Your task to perform on an android device: View the shopping cart on amazon.com. Add acer nitro to the cart on amazon.com Image 0: 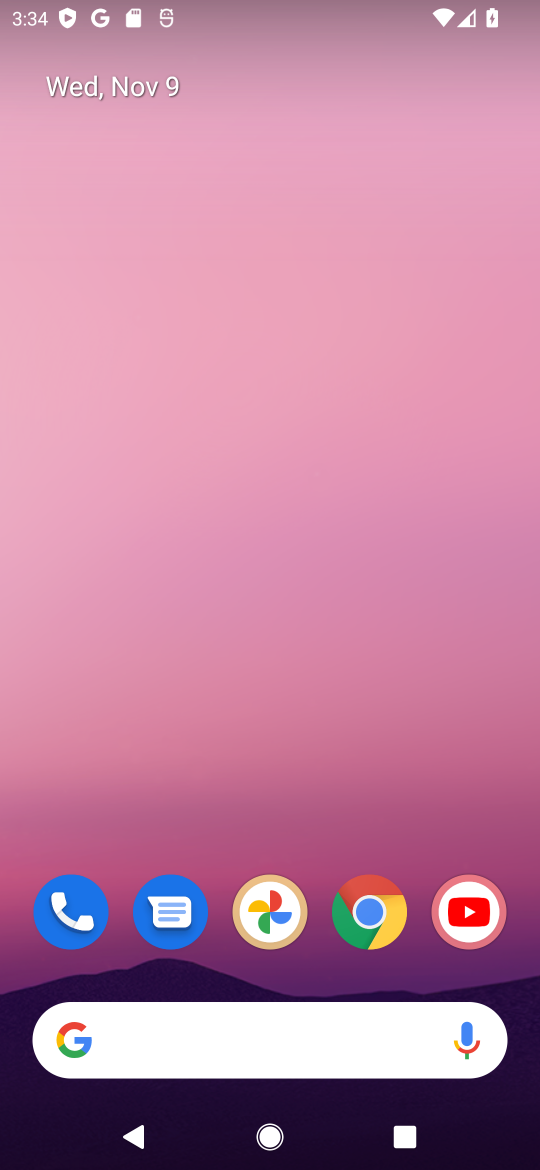
Step 0: click (369, 915)
Your task to perform on an android device: View the shopping cart on amazon.com. Add acer nitro to the cart on amazon.com Image 1: 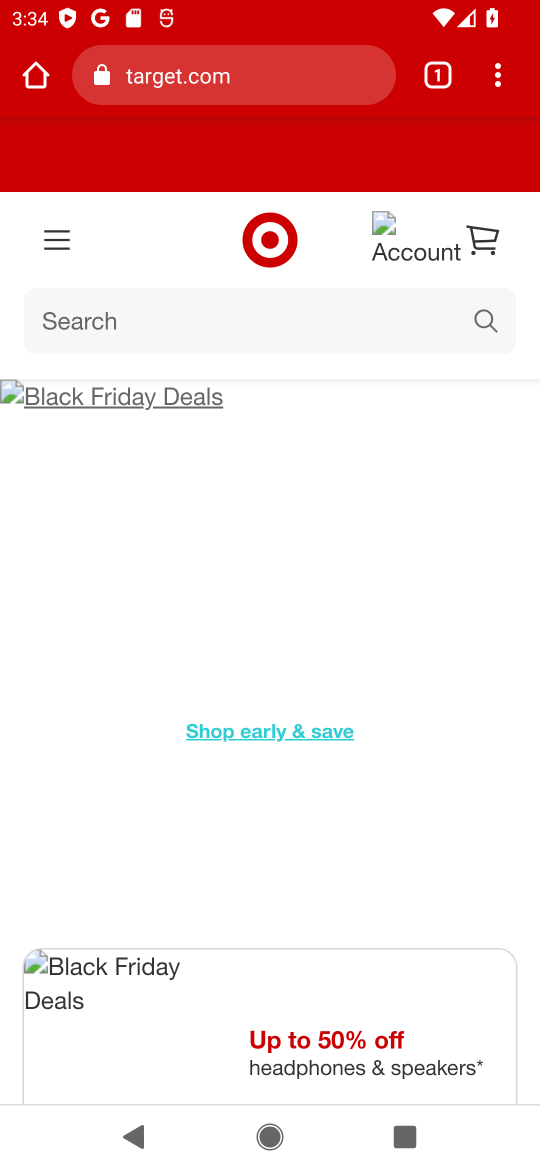
Step 1: click (259, 83)
Your task to perform on an android device: View the shopping cart on amazon.com. Add acer nitro to the cart on amazon.com Image 2: 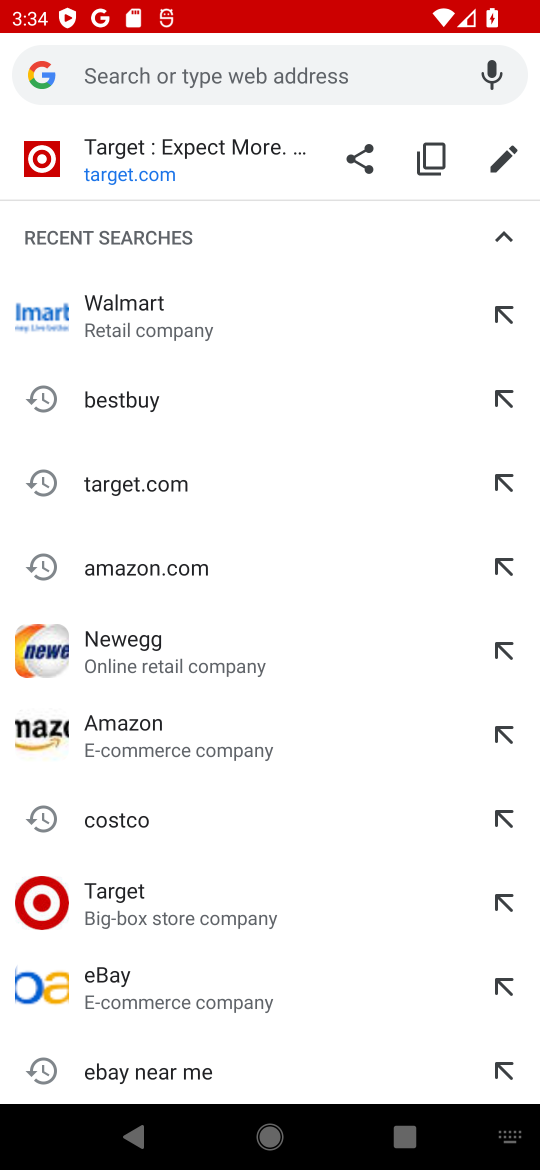
Step 2: type "amazon.com"
Your task to perform on an android device: View the shopping cart on amazon.com. Add acer nitro to the cart on amazon.com Image 3: 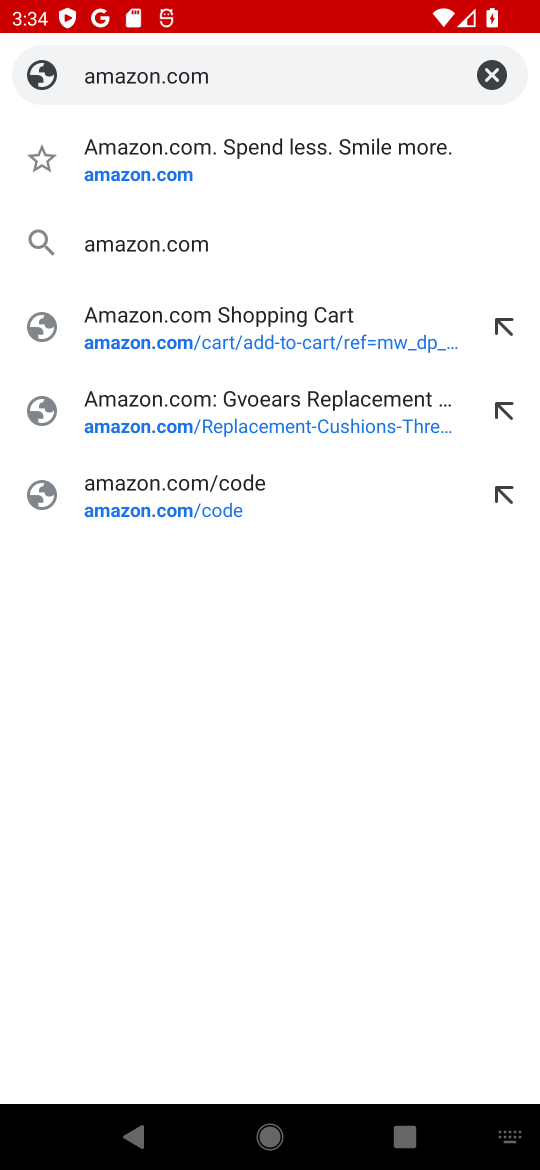
Step 3: click (137, 246)
Your task to perform on an android device: View the shopping cart on amazon.com. Add acer nitro to the cart on amazon.com Image 4: 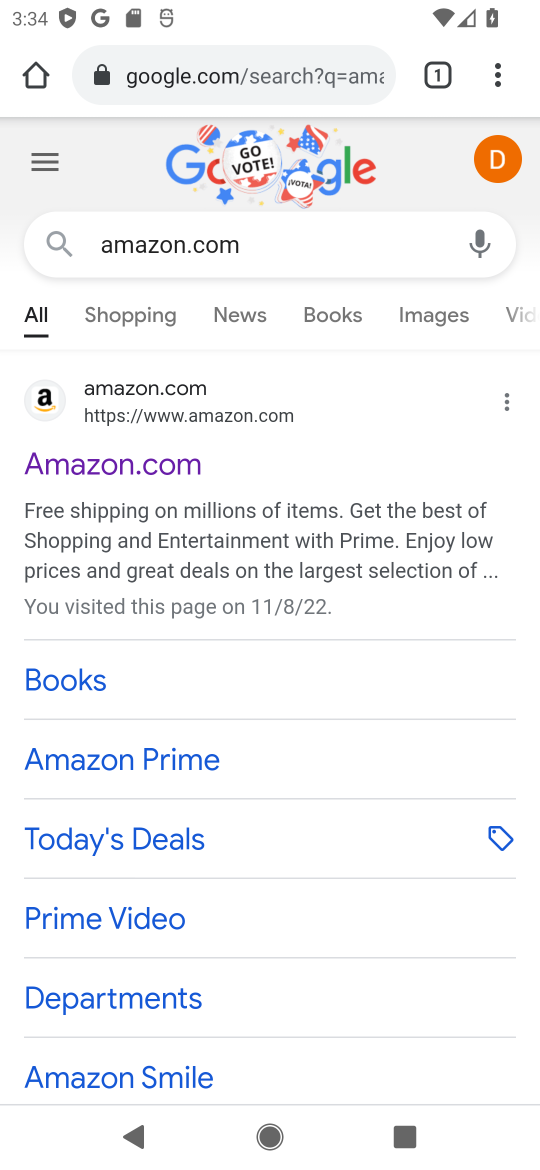
Step 4: click (143, 463)
Your task to perform on an android device: View the shopping cart on amazon.com. Add acer nitro to the cart on amazon.com Image 5: 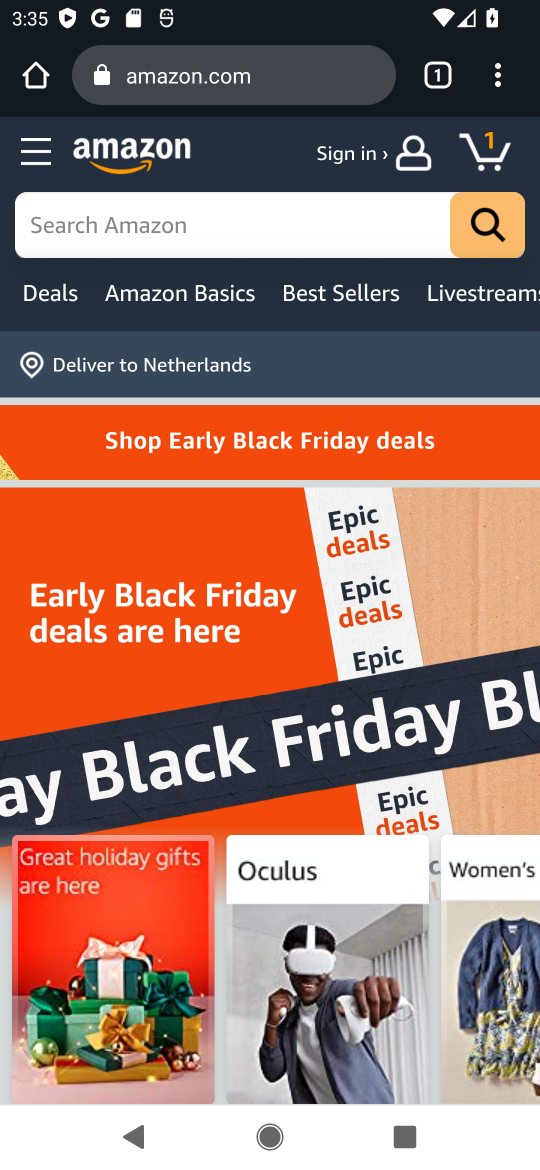
Step 5: click (488, 153)
Your task to perform on an android device: View the shopping cart on amazon.com. Add acer nitro to the cart on amazon.com Image 6: 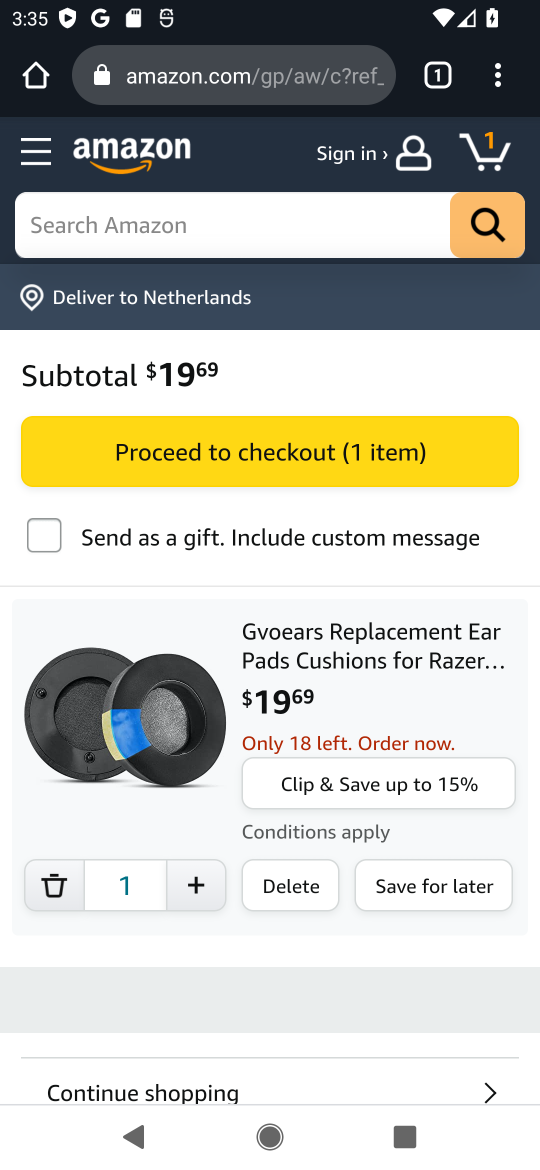
Step 6: click (273, 227)
Your task to perform on an android device: View the shopping cart on amazon.com. Add acer nitro to the cart on amazon.com Image 7: 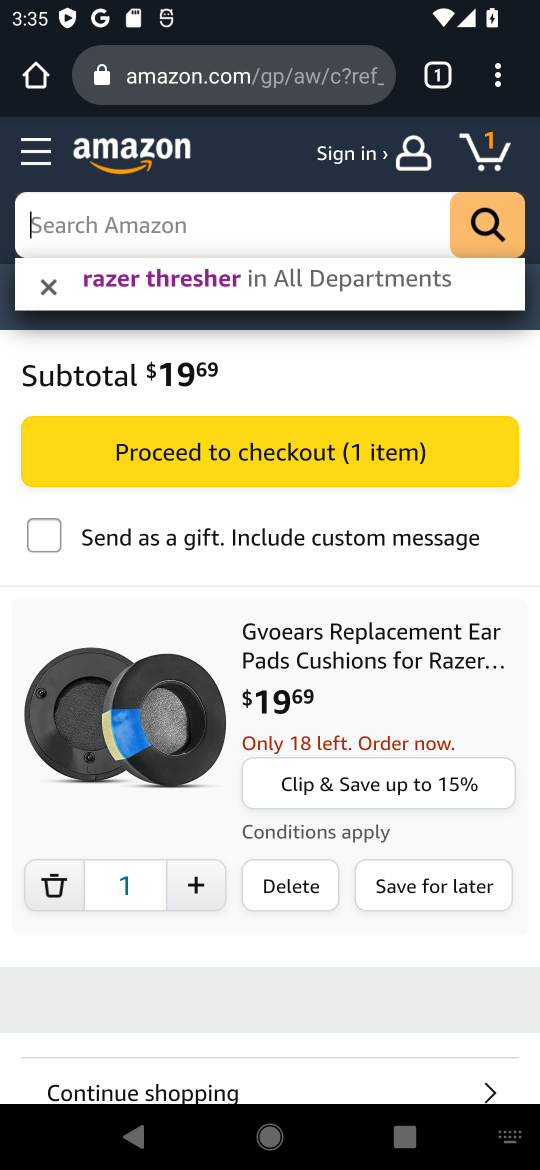
Step 7: type "acer nitro"
Your task to perform on an android device: View the shopping cart on amazon.com. Add acer nitro to the cart on amazon.com Image 8: 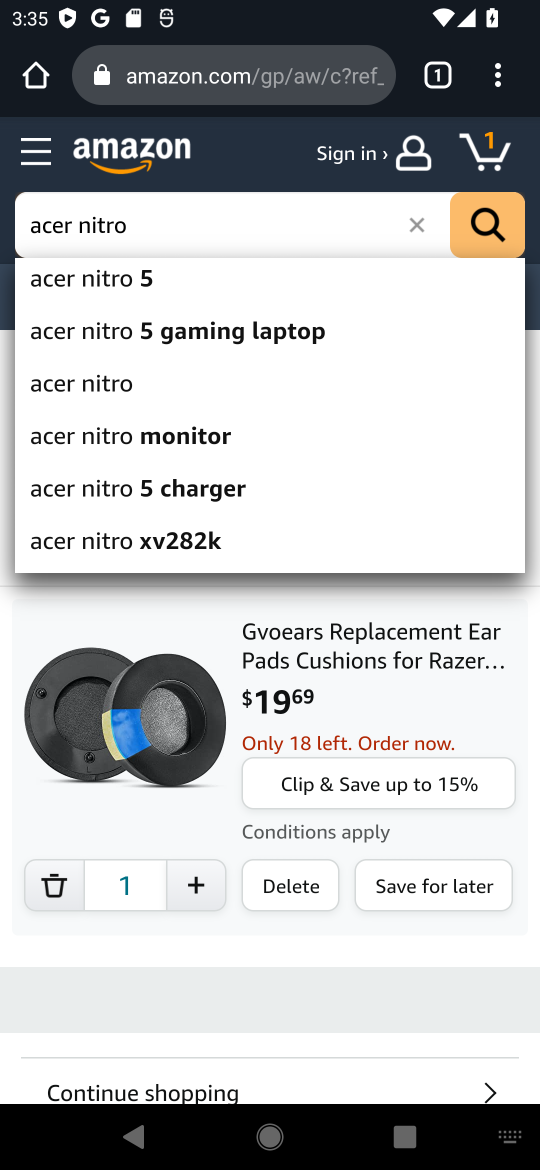
Step 8: click (127, 385)
Your task to perform on an android device: View the shopping cart on amazon.com. Add acer nitro to the cart on amazon.com Image 9: 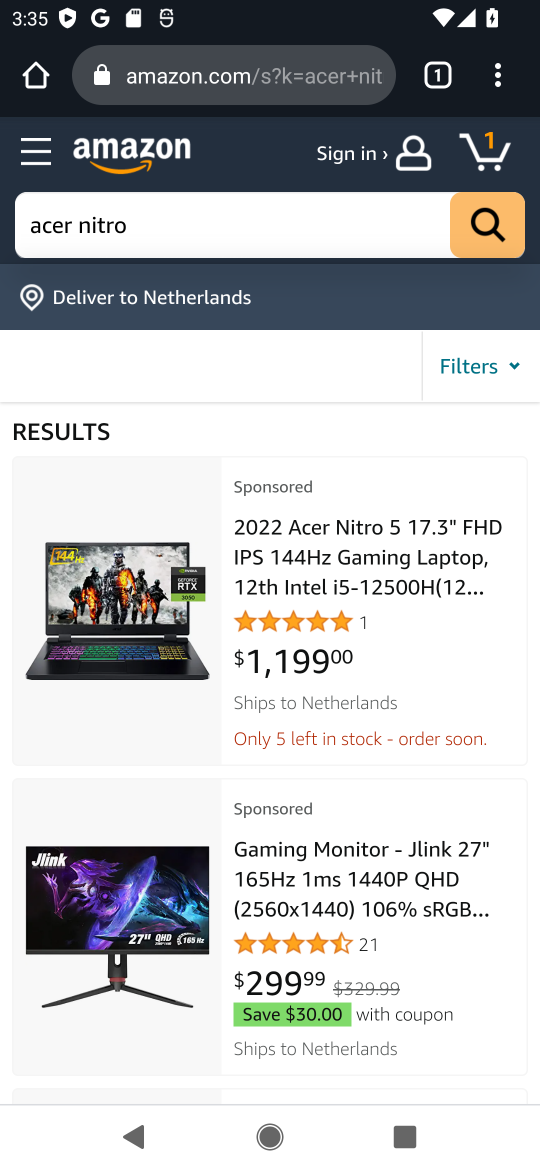
Step 9: drag from (328, 820) to (376, 462)
Your task to perform on an android device: View the shopping cart on amazon.com. Add acer nitro to the cart on amazon.com Image 10: 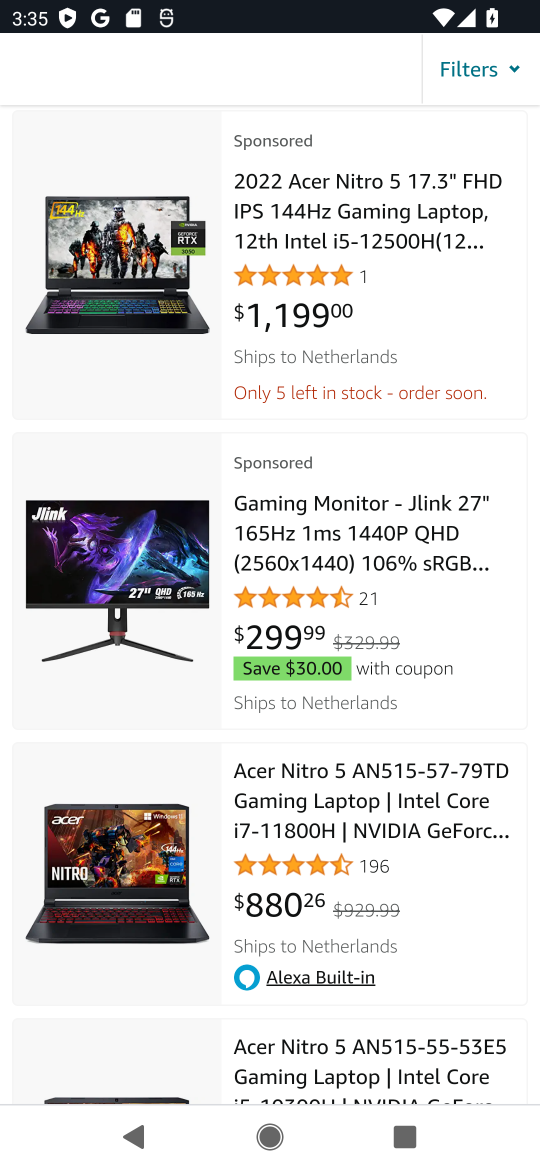
Step 10: click (362, 181)
Your task to perform on an android device: View the shopping cart on amazon.com. Add acer nitro to the cart on amazon.com Image 11: 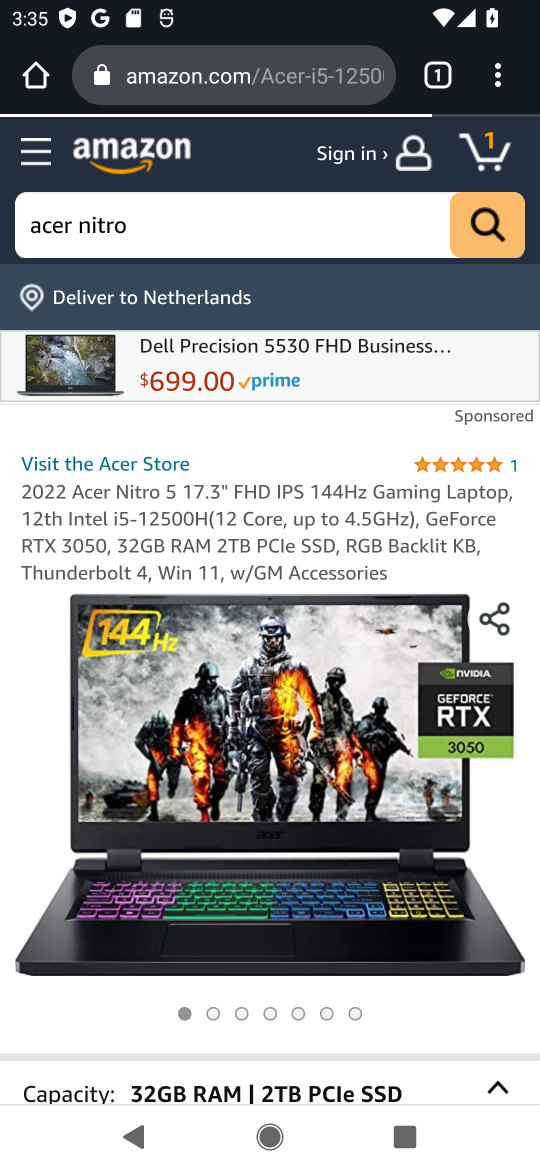
Step 11: drag from (322, 784) to (335, 530)
Your task to perform on an android device: View the shopping cart on amazon.com. Add acer nitro to the cart on amazon.com Image 12: 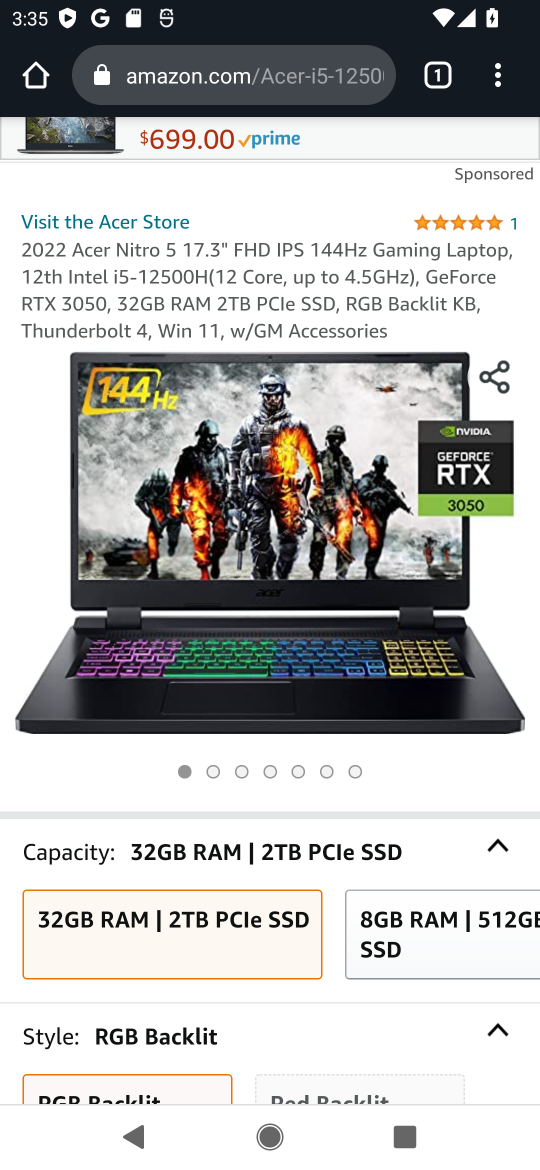
Step 12: drag from (330, 1025) to (357, 467)
Your task to perform on an android device: View the shopping cart on amazon.com. Add acer nitro to the cart on amazon.com Image 13: 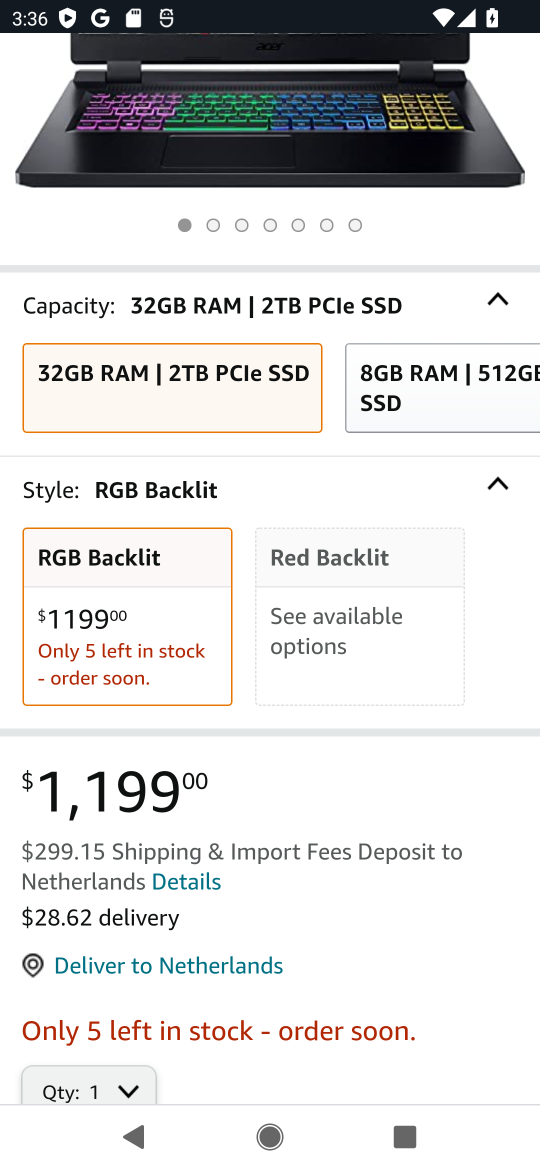
Step 13: drag from (341, 863) to (385, 432)
Your task to perform on an android device: View the shopping cart on amazon.com. Add acer nitro to the cart on amazon.com Image 14: 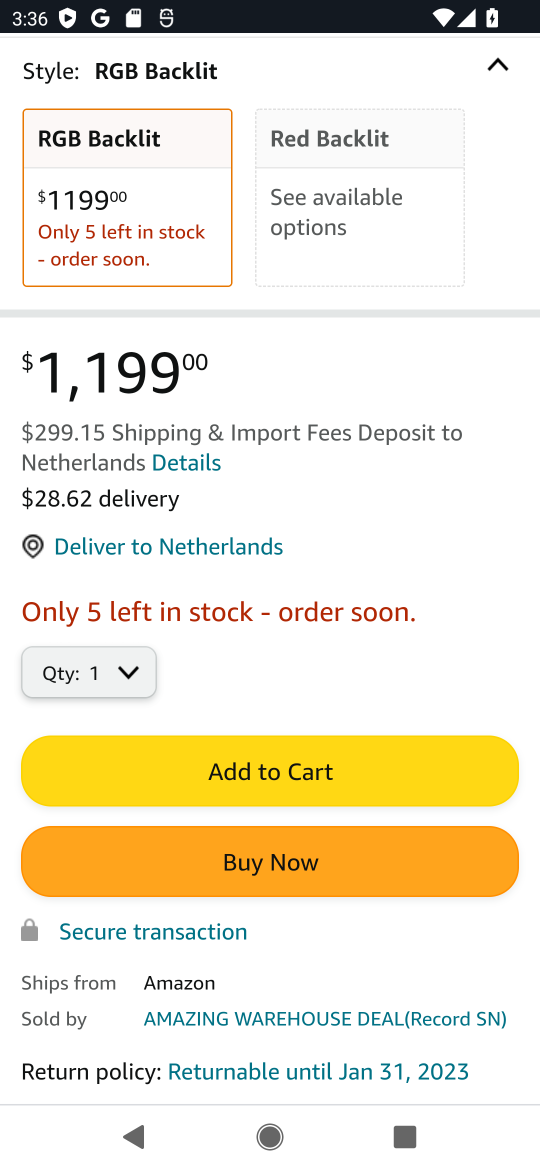
Step 14: click (255, 769)
Your task to perform on an android device: View the shopping cart on amazon.com. Add acer nitro to the cart on amazon.com Image 15: 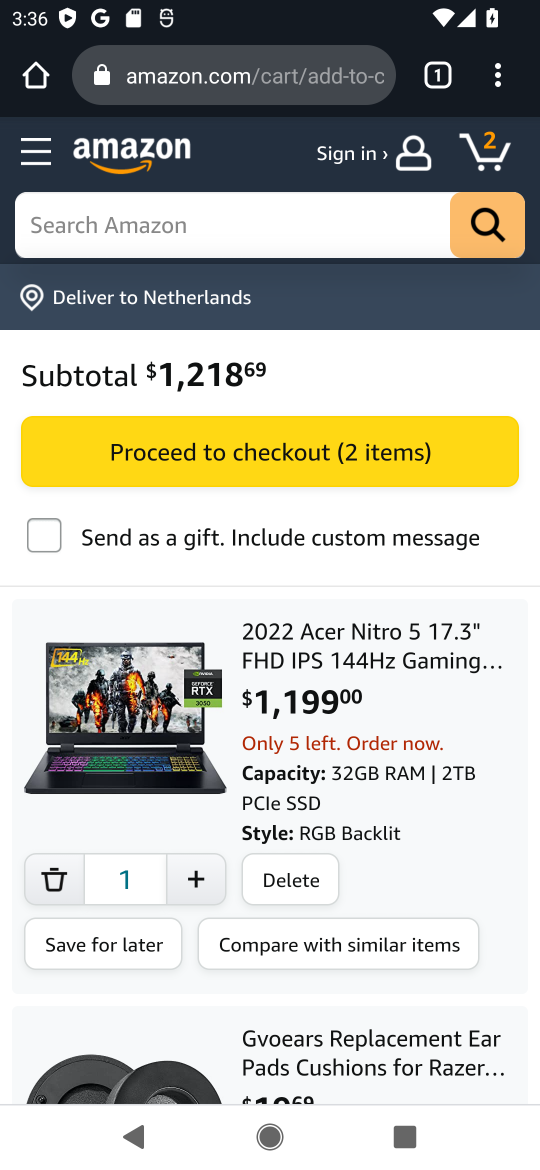
Step 15: task complete